Your task to perform on an android device: turn smart compose on in the gmail app Image 0: 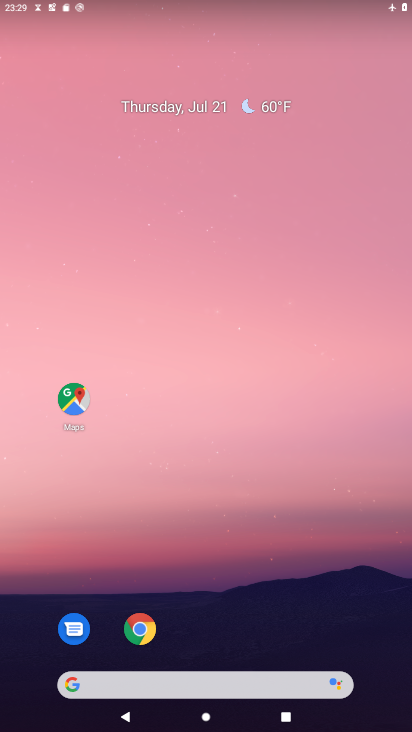
Step 0: drag from (269, 619) to (257, 8)
Your task to perform on an android device: turn smart compose on in the gmail app Image 1: 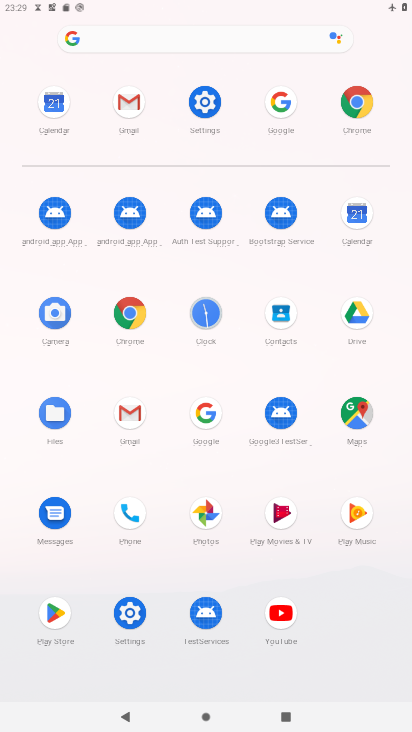
Step 1: click (123, 418)
Your task to perform on an android device: turn smart compose on in the gmail app Image 2: 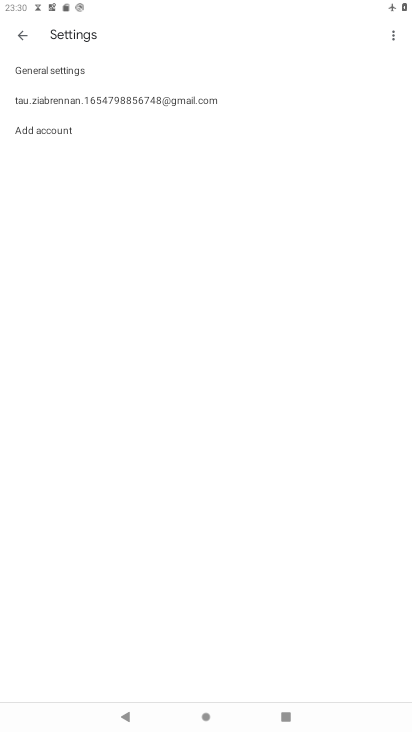
Step 2: click (60, 71)
Your task to perform on an android device: turn smart compose on in the gmail app Image 3: 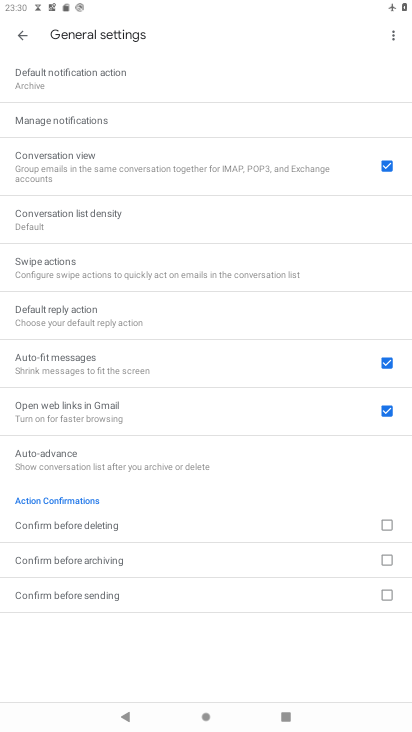
Step 3: click (17, 20)
Your task to perform on an android device: turn smart compose on in the gmail app Image 4: 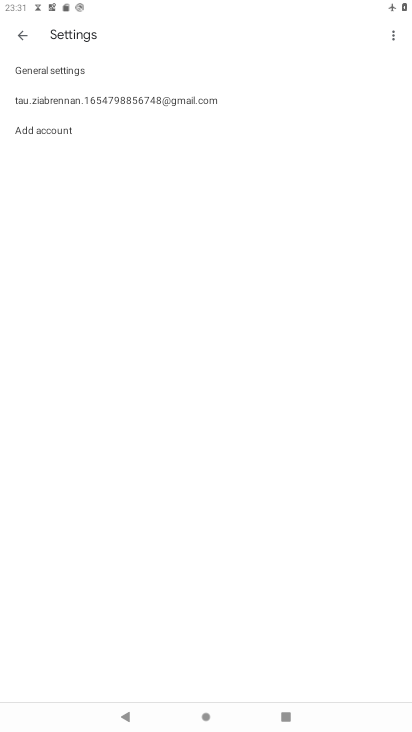
Step 4: click (96, 99)
Your task to perform on an android device: turn smart compose on in the gmail app Image 5: 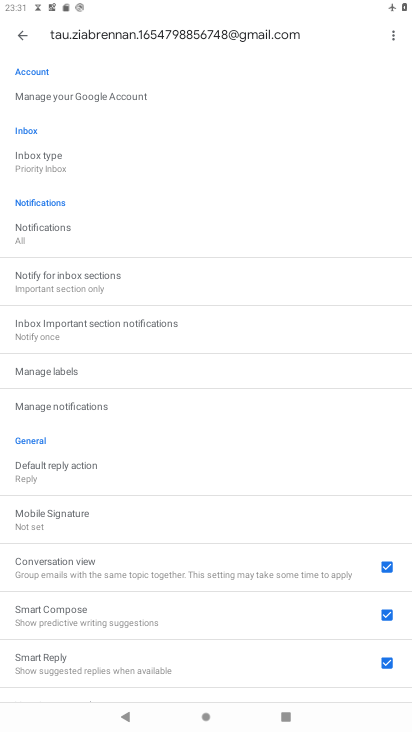
Step 5: task complete